Your task to perform on an android device: Go to calendar. Show me events next week Image 0: 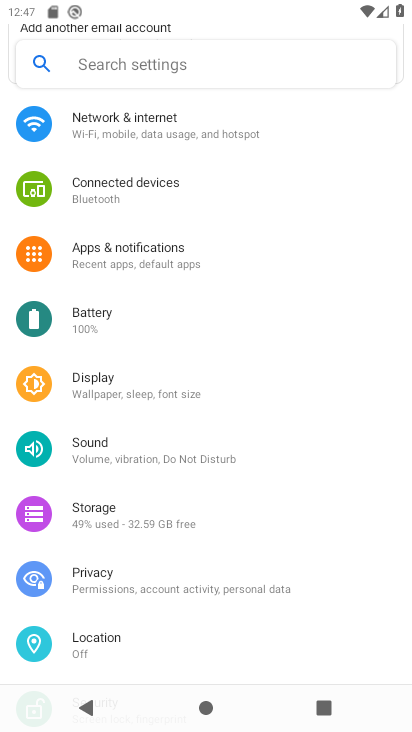
Step 0: press home button
Your task to perform on an android device: Go to calendar. Show me events next week Image 1: 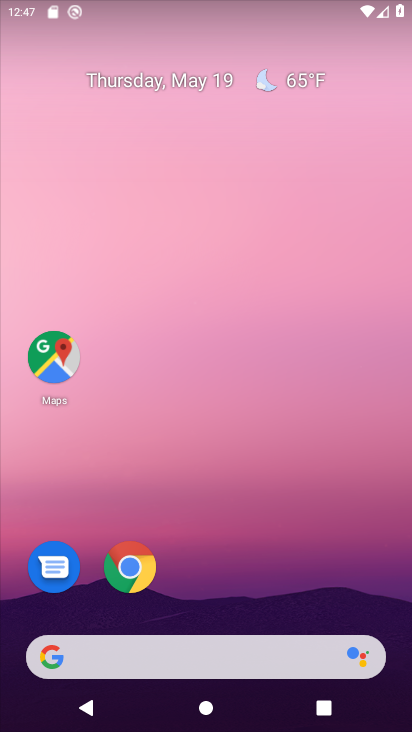
Step 1: drag from (296, 604) to (263, 167)
Your task to perform on an android device: Go to calendar. Show me events next week Image 2: 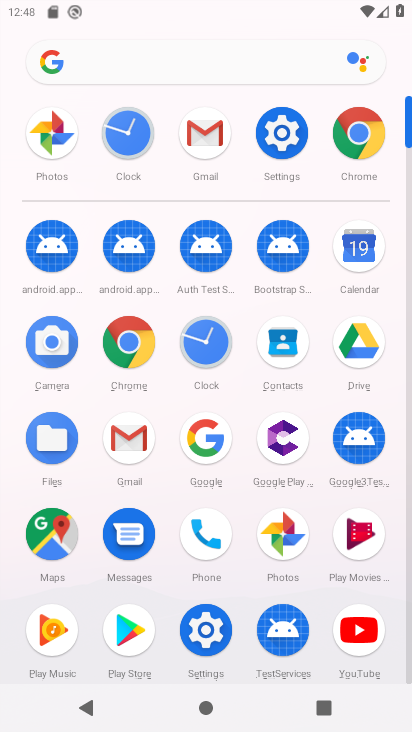
Step 2: click (363, 246)
Your task to perform on an android device: Go to calendar. Show me events next week Image 3: 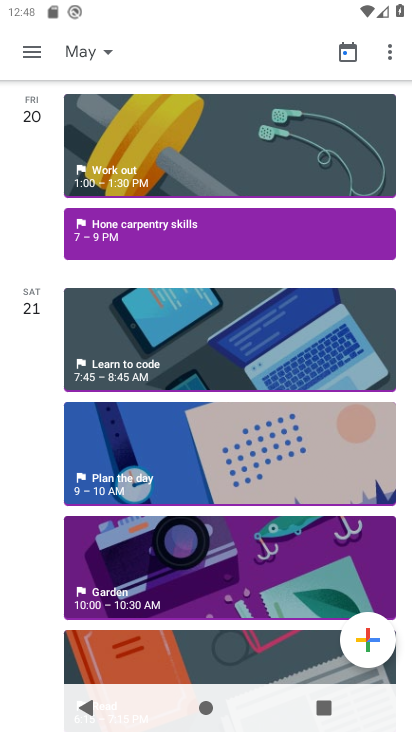
Step 3: click (28, 47)
Your task to perform on an android device: Go to calendar. Show me events next week Image 4: 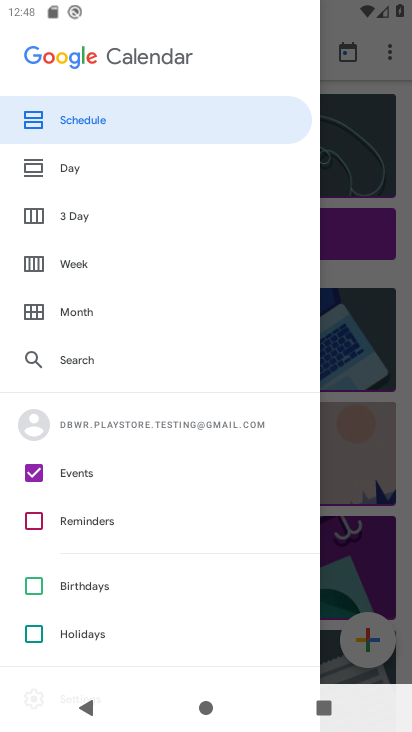
Step 4: click (88, 265)
Your task to perform on an android device: Go to calendar. Show me events next week Image 5: 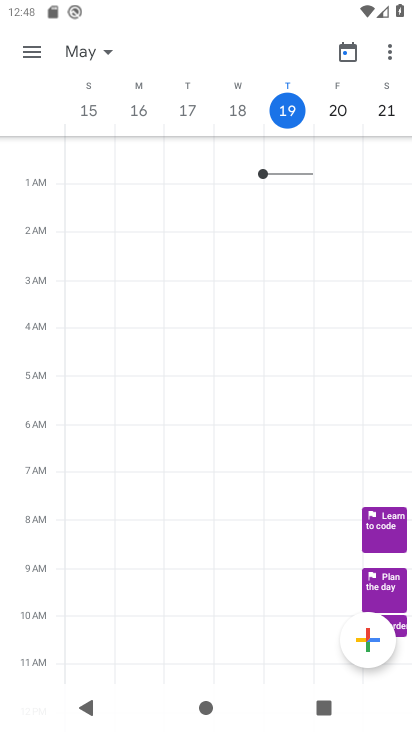
Step 5: task complete